Your task to perform on an android device: install app "Viber Messenger" Image 0: 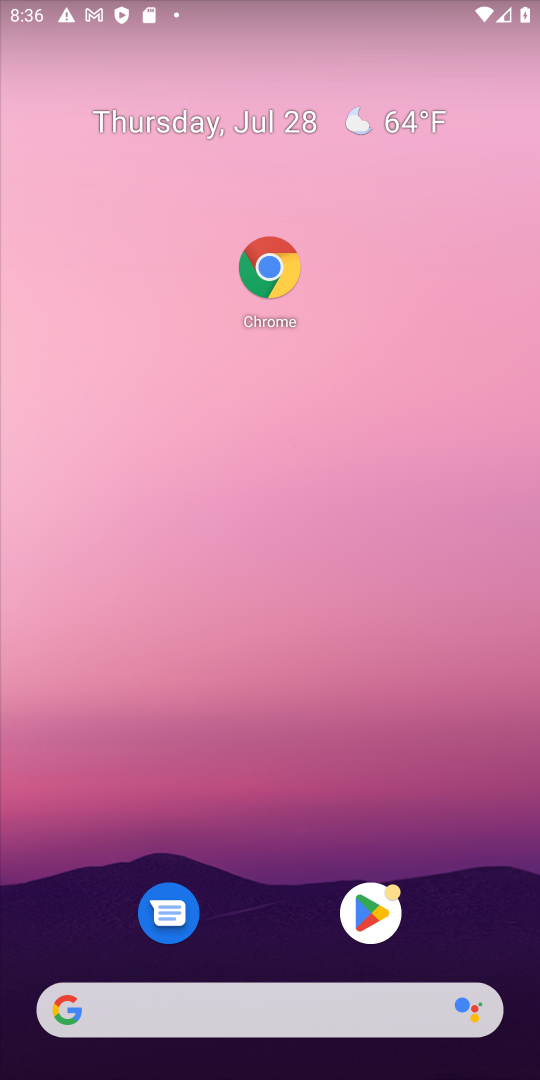
Step 0: click (358, 943)
Your task to perform on an android device: install app "Viber Messenger" Image 1: 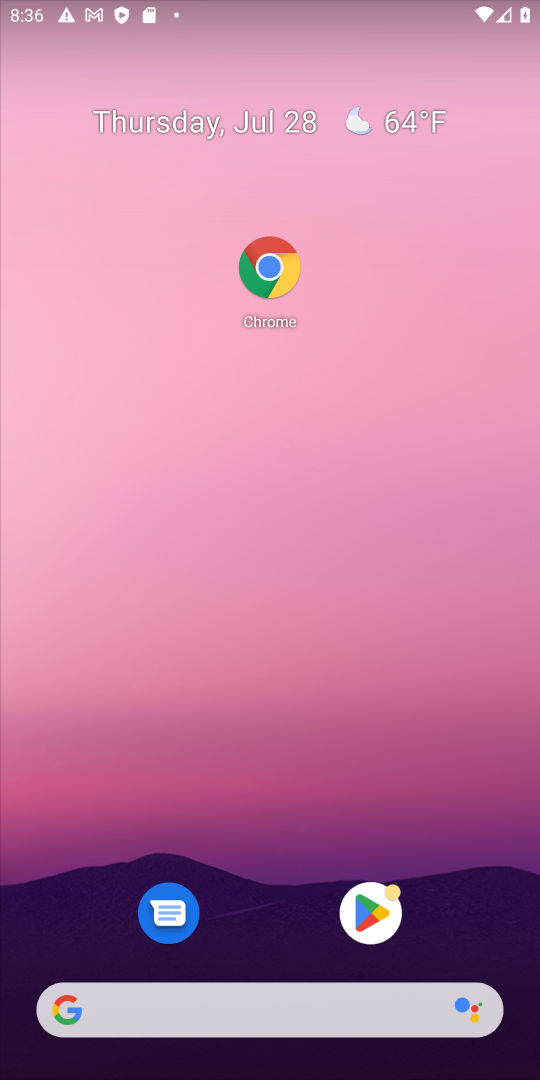
Step 1: click (361, 926)
Your task to perform on an android device: install app "Viber Messenger" Image 2: 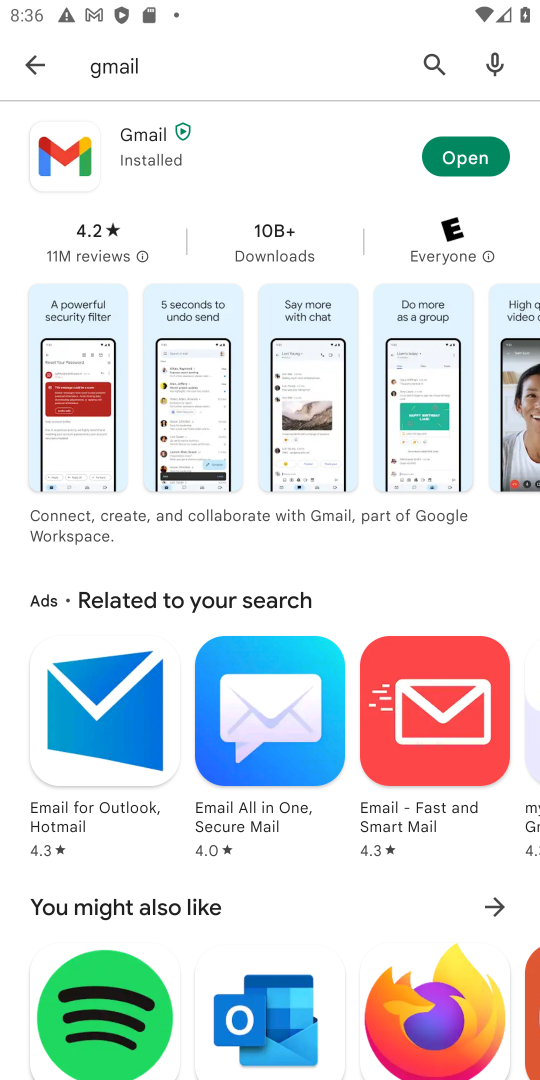
Step 2: click (433, 59)
Your task to perform on an android device: install app "Viber Messenger" Image 3: 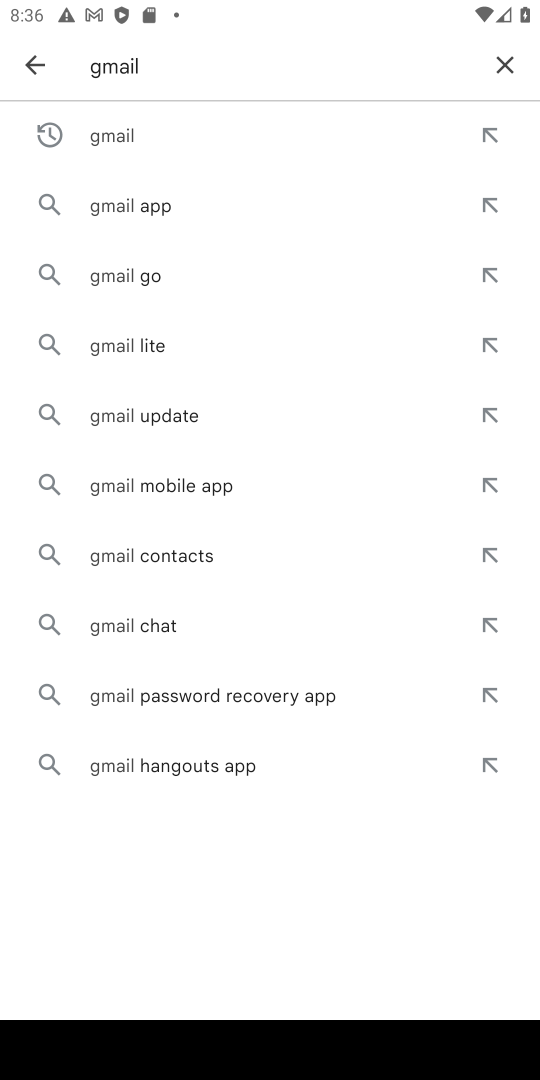
Step 3: click (505, 60)
Your task to perform on an android device: install app "Viber Messenger" Image 4: 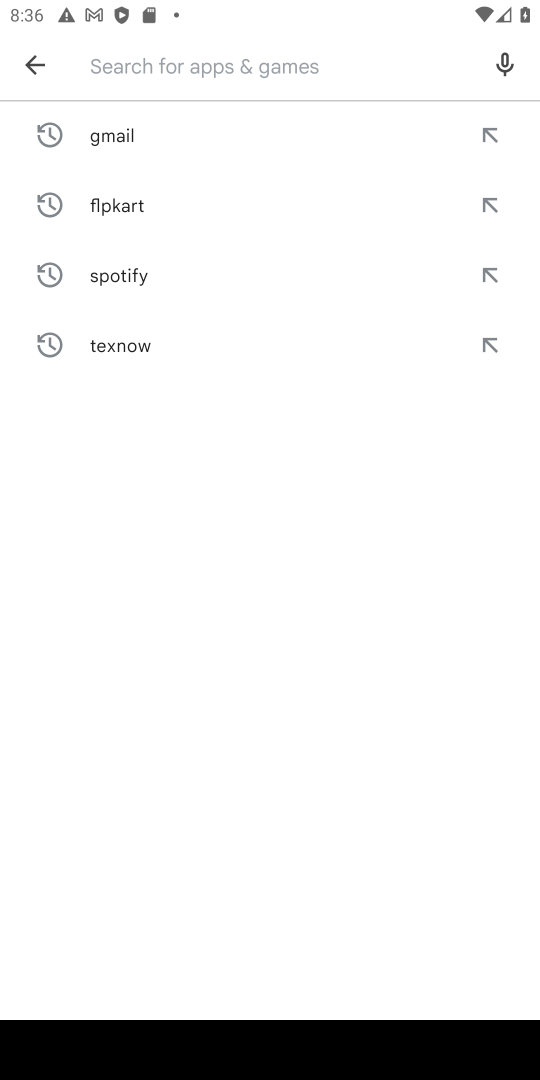
Step 4: type "viber"
Your task to perform on an android device: install app "Viber Messenger" Image 5: 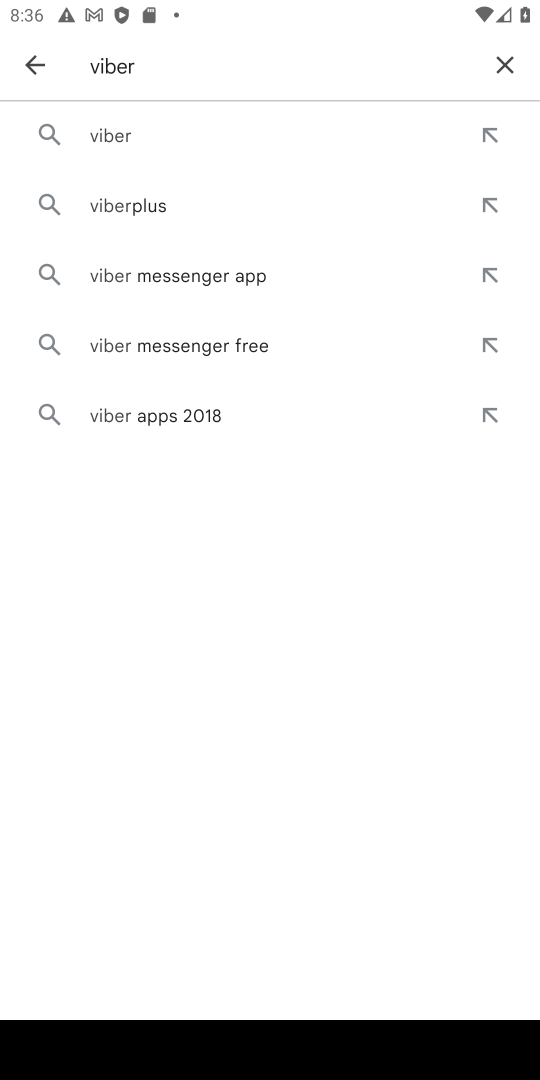
Step 5: click (137, 148)
Your task to perform on an android device: install app "Viber Messenger" Image 6: 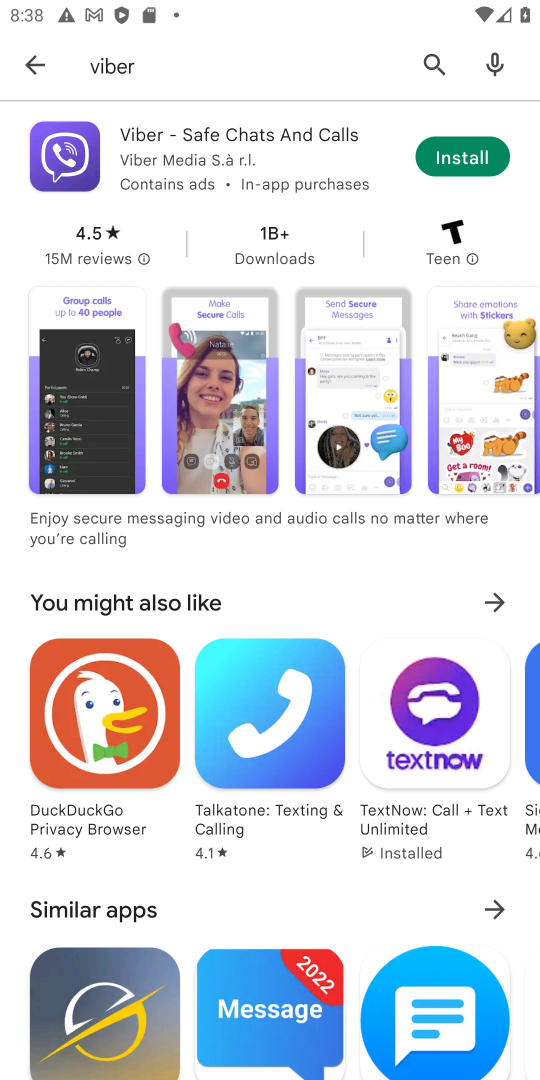
Step 6: click (457, 154)
Your task to perform on an android device: install app "Viber Messenger" Image 7: 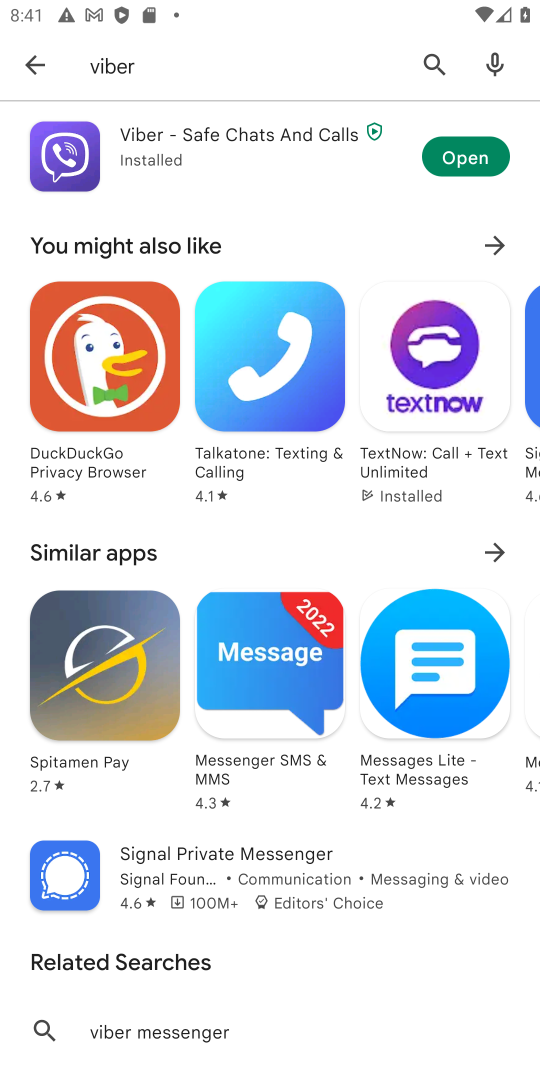
Step 7: task complete